Your task to perform on an android device: Go to settings Image 0: 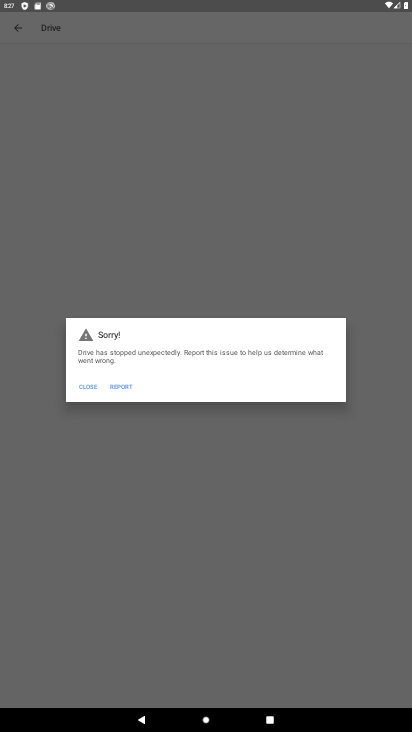
Step 0: press home button
Your task to perform on an android device: Go to settings Image 1: 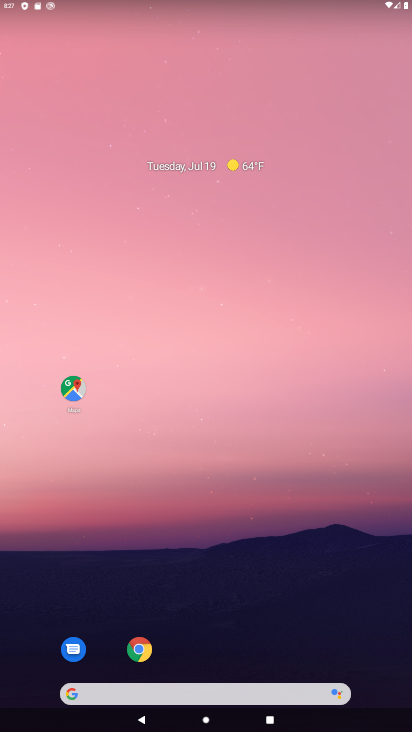
Step 1: drag from (195, 636) to (167, 62)
Your task to perform on an android device: Go to settings Image 2: 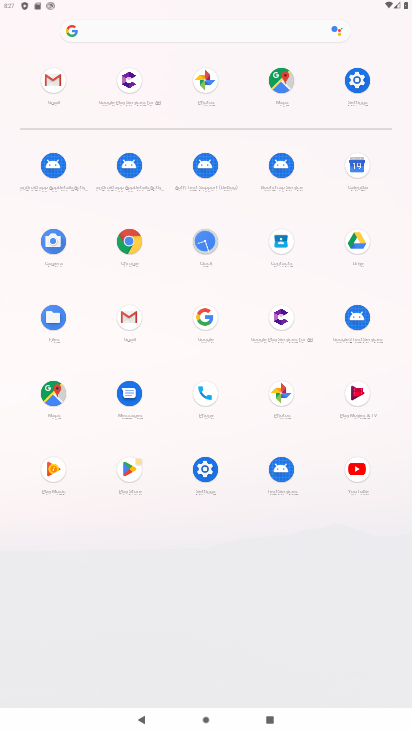
Step 2: click (356, 95)
Your task to perform on an android device: Go to settings Image 3: 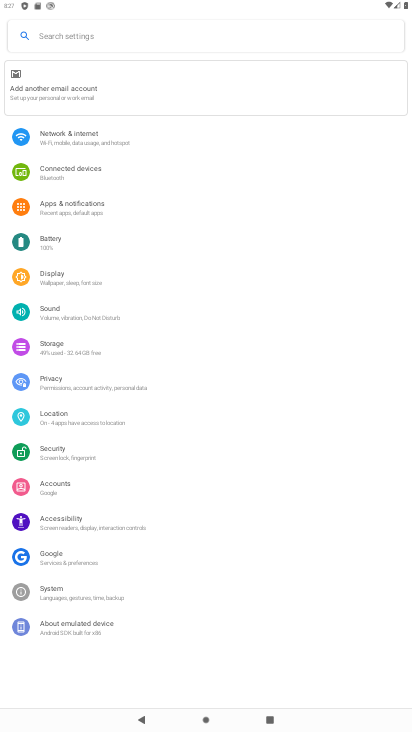
Step 3: task complete